Your task to perform on an android device: turn off notifications settings in the gmail app Image 0: 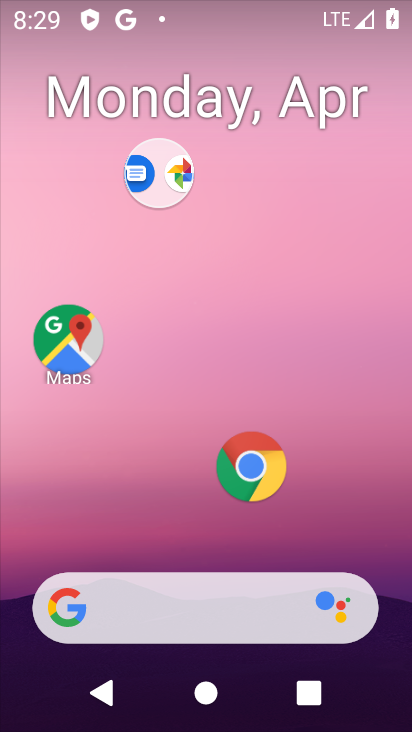
Step 0: drag from (172, 559) to (316, 165)
Your task to perform on an android device: turn off notifications settings in the gmail app Image 1: 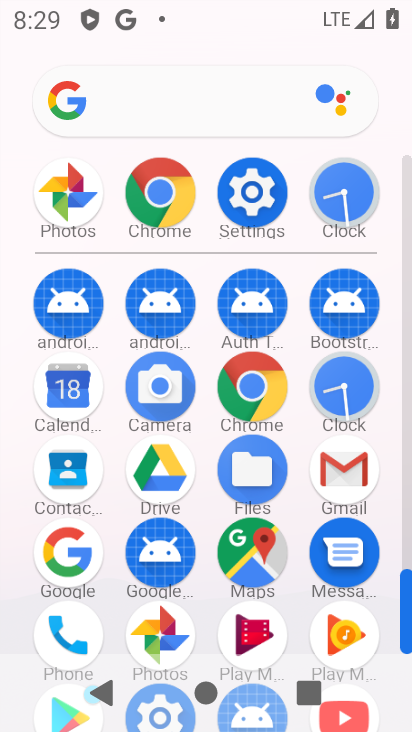
Step 1: click (347, 449)
Your task to perform on an android device: turn off notifications settings in the gmail app Image 2: 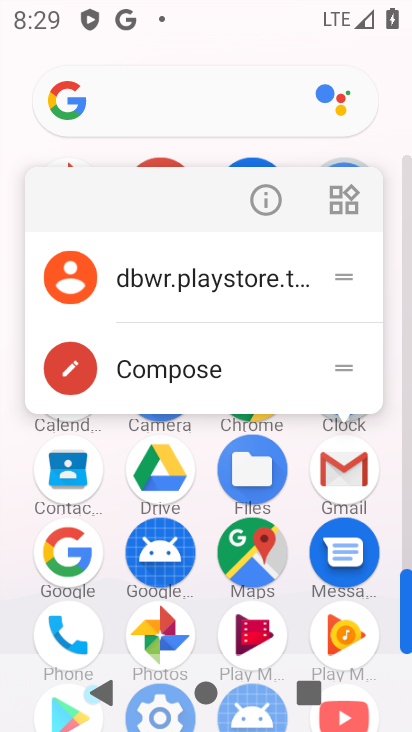
Step 2: click (271, 210)
Your task to perform on an android device: turn off notifications settings in the gmail app Image 3: 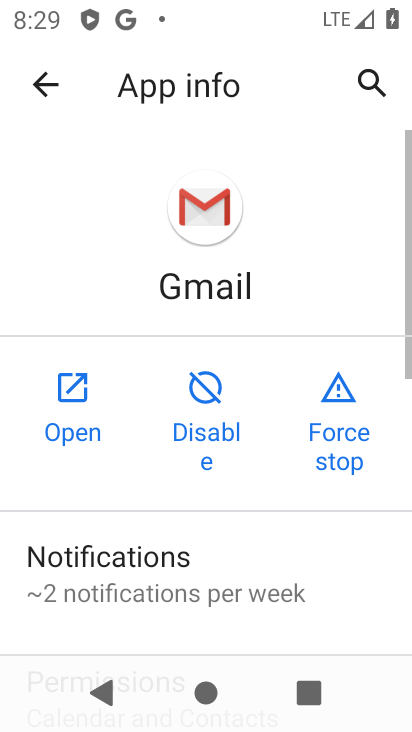
Step 3: click (55, 416)
Your task to perform on an android device: turn off notifications settings in the gmail app Image 4: 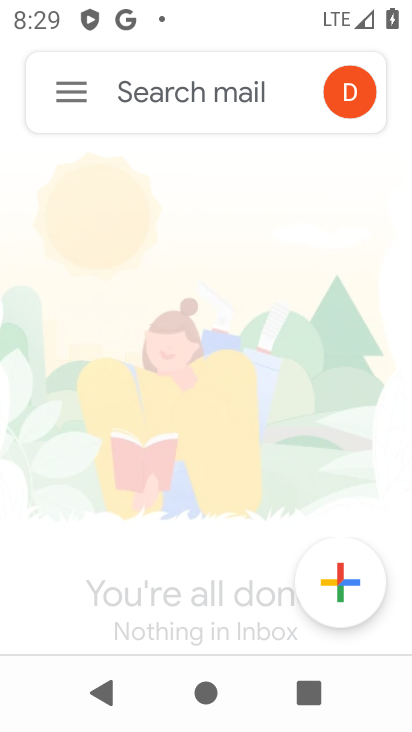
Step 4: click (84, 90)
Your task to perform on an android device: turn off notifications settings in the gmail app Image 5: 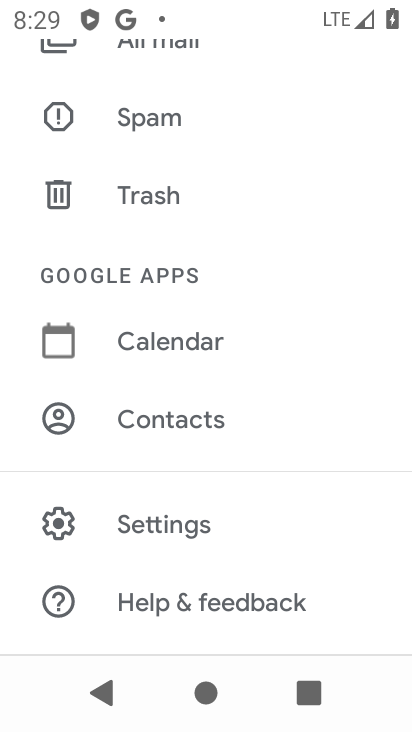
Step 5: drag from (129, 482) to (238, 248)
Your task to perform on an android device: turn off notifications settings in the gmail app Image 6: 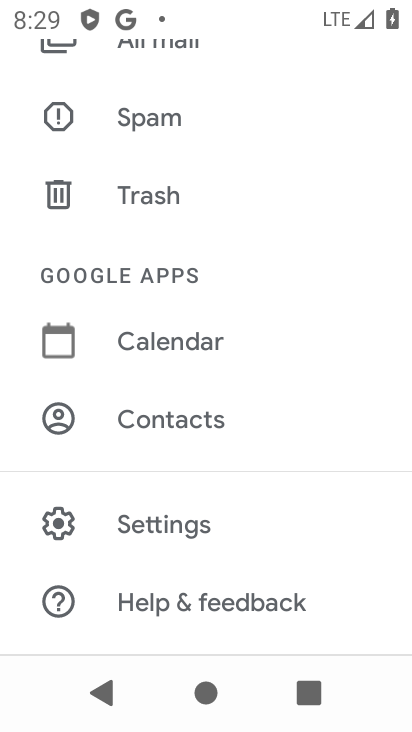
Step 6: click (197, 529)
Your task to perform on an android device: turn off notifications settings in the gmail app Image 7: 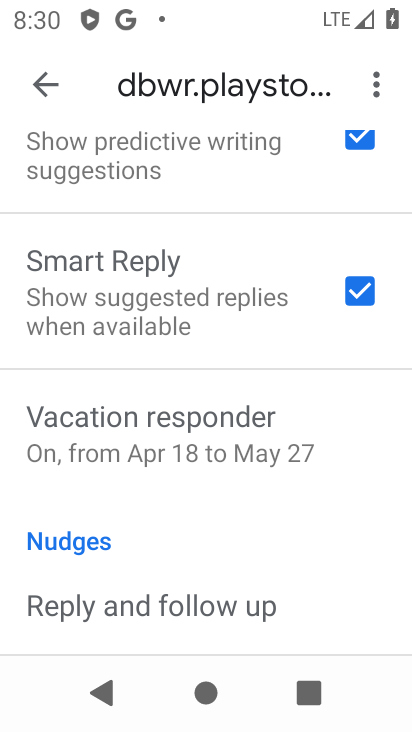
Step 7: drag from (209, 490) to (282, 308)
Your task to perform on an android device: turn off notifications settings in the gmail app Image 8: 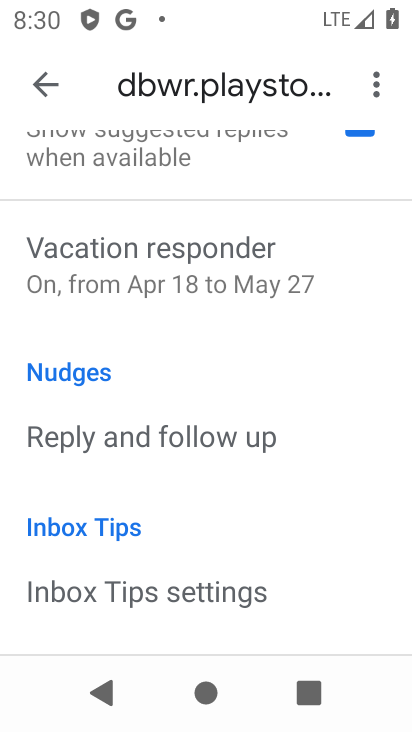
Step 8: drag from (177, 366) to (253, 669)
Your task to perform on an android device: turn off notifications settings in the gmail app Image 9: 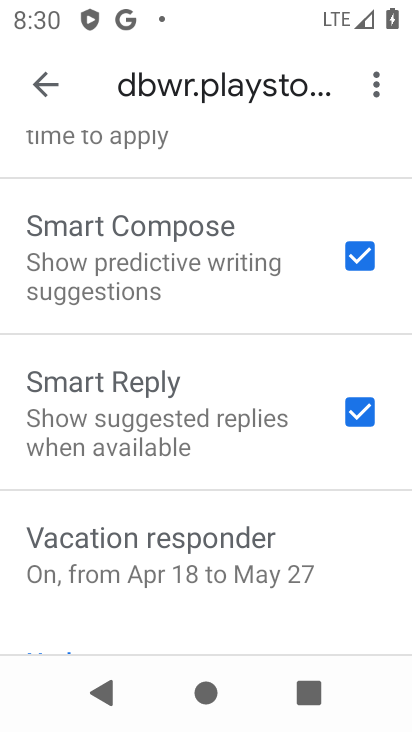
Step 9: drag from (244, 260) to (292, 670)
Your task to perform on an android device: turn off notifications settings in the gmail app Image 10: 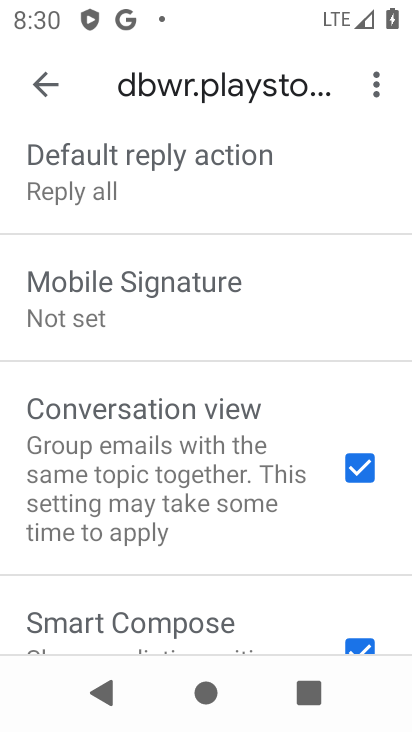
Step 10: drag from (163, 258) to (252, 525)
Your task to perform on an android device: turn off notifications settings in the gmail app Image 11: 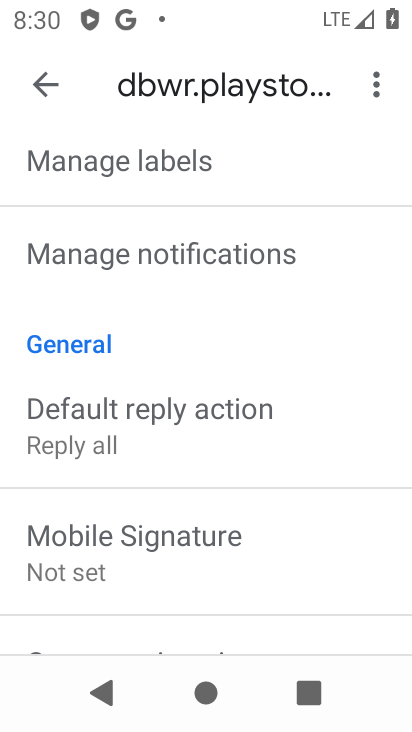
Step 11: click (105, 261)
Your task to perform on an android device: turn off notifications settings in the gmail app Image 12: 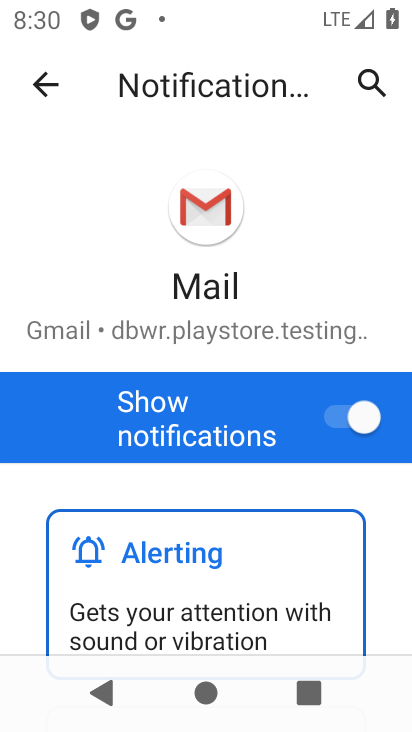
Step 12: drag from (203, 545) to (295, 322)
Your task to perform on an android device: turn off notifications settings in the gmail app Image 13: 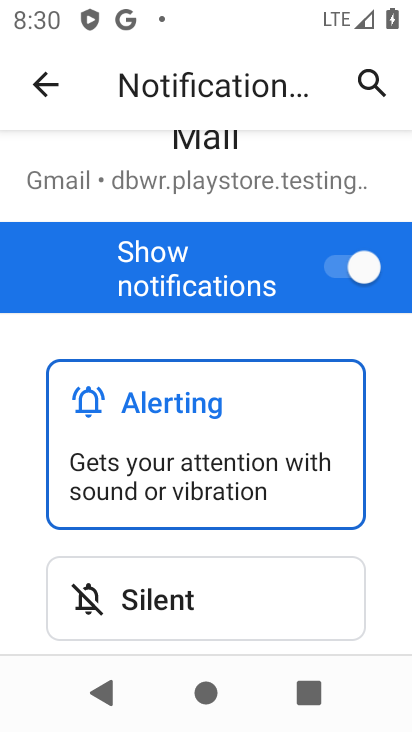
Step 13: click (362, 257)
Your task to perform on an android device: turn off notifications settings in the gmail app Image 14: 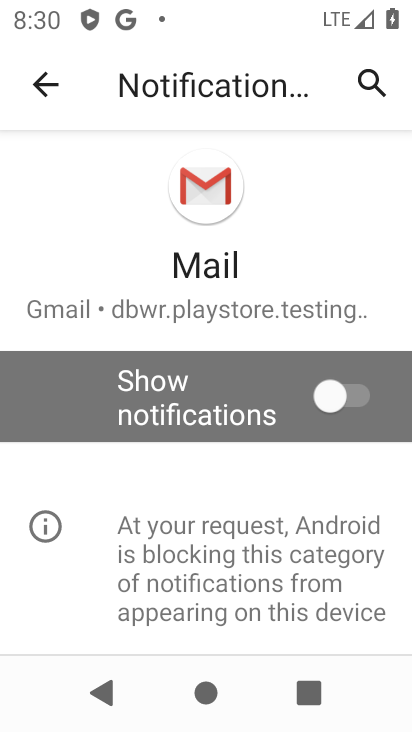
Step 14: task complete